Your task to perform on an android device: toggle translation in the chrome app Image 0: 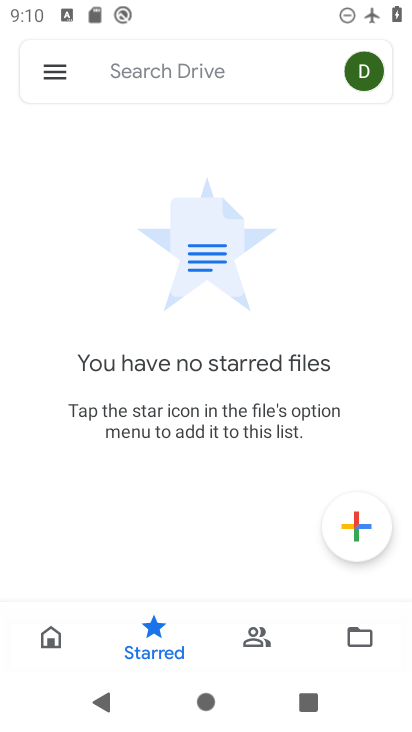
Step 0: press home button
Your task to perform on an android device: toggle translation in the chrome app Image 1: 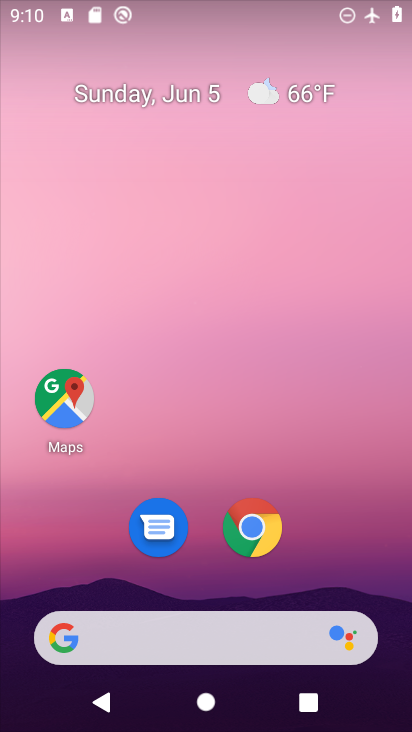
Step 1: click (252, 526)
Your task to perform on an android device: toggle translation in the chrome app Image 2: 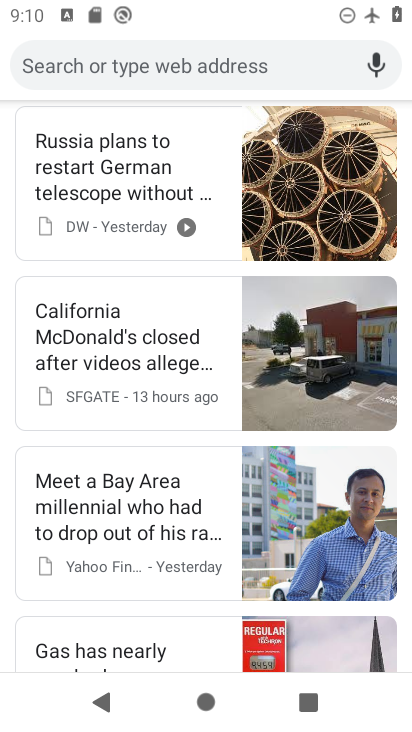
Step 2: drag from (224, 71) to (233, 723)
Your task to perform on an android device: toggle translation in the chrome app Image 3: 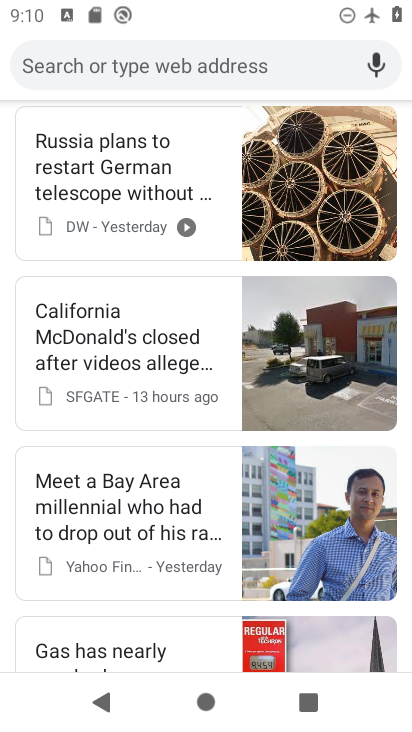
Step 3: drag from (220, 146) to (181, 602)
Your task to perform on an android device: toggle translation in the chrome app Image 4: 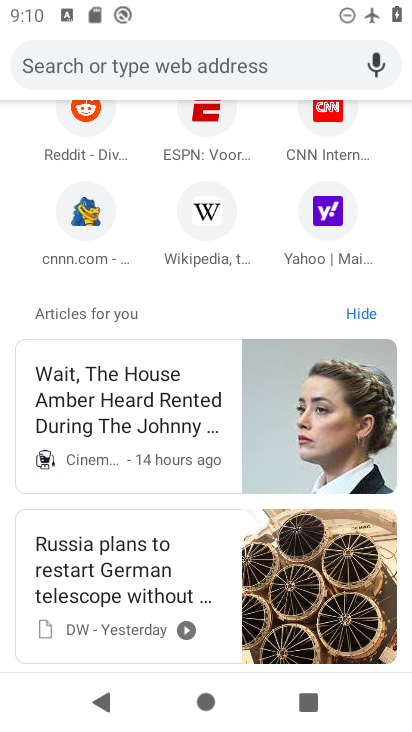
Step 4: drag from (200, 213) to (219, 686)
Your task to perform on an android device: toggle translation in the chrome app Image 5: 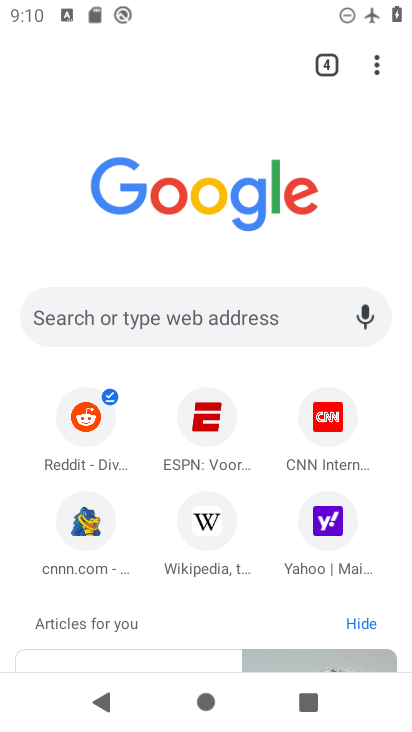
Step 5: click (377, 65)
Your task to perform on an android device: toggle translation in the chrome app Image 6: 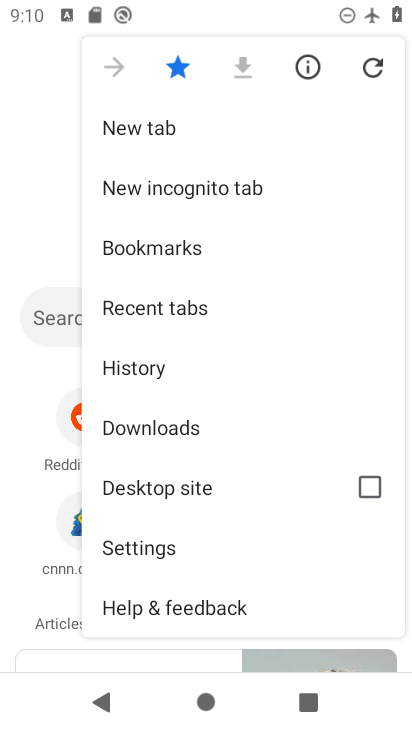
Step 6: click (108, 566)
Your task to perform on an android device: toggle translation in the chrome app Image 7: 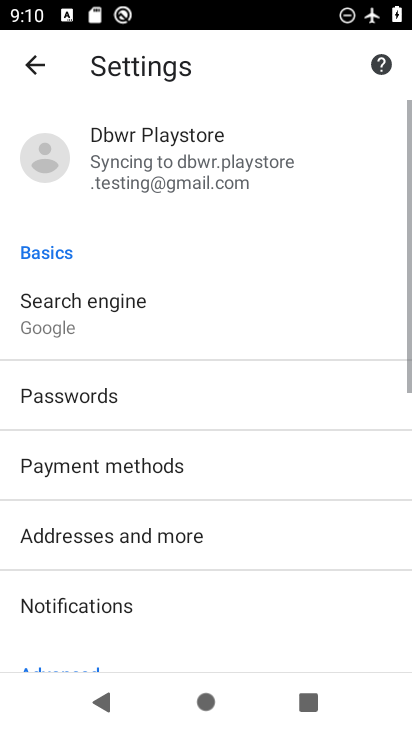
Step 7: drag from (108, 566) to (157, 127)
Your task to perform on an android device: toggle translation in the chrome app Image 8: 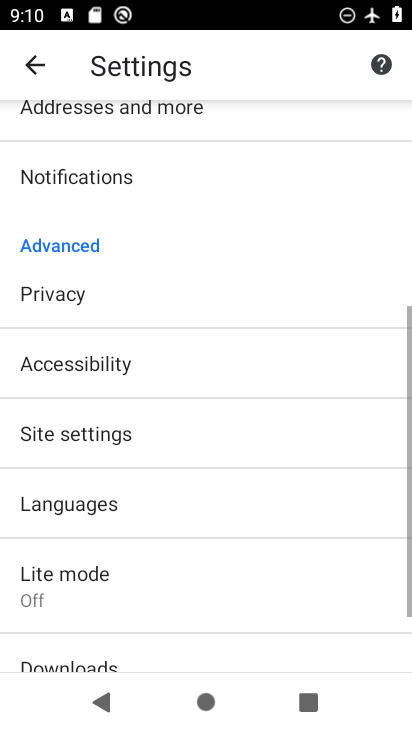
Step 8: click (73, 525)
Your task to perform on an android device: toggle translation in the chrome app Image 9: 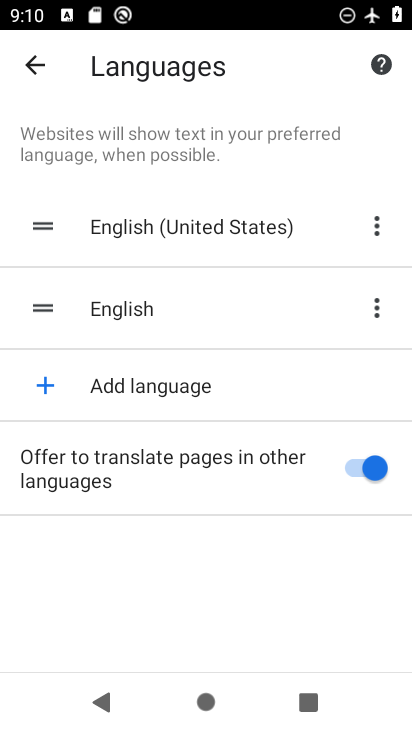
Step 9: click (383, 474)
Your task to perform on an android device: toggle translation in the chrome app Image 10: 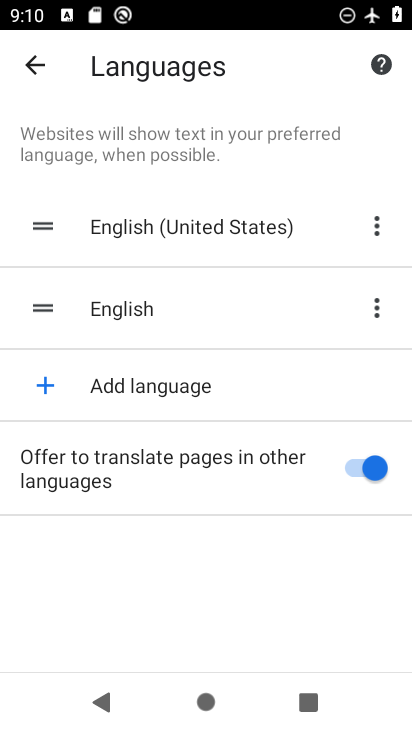
Step 10: click (383, 474)
Your task to perform on an android device: toggle translation in the chrome app Image 11: 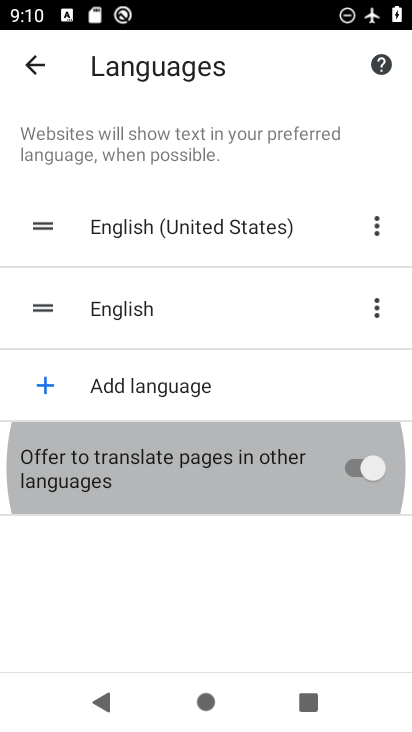
Step 11: click (383, 474)
Your task to perform on an android device: toggle translation in the chrome app Image 12: 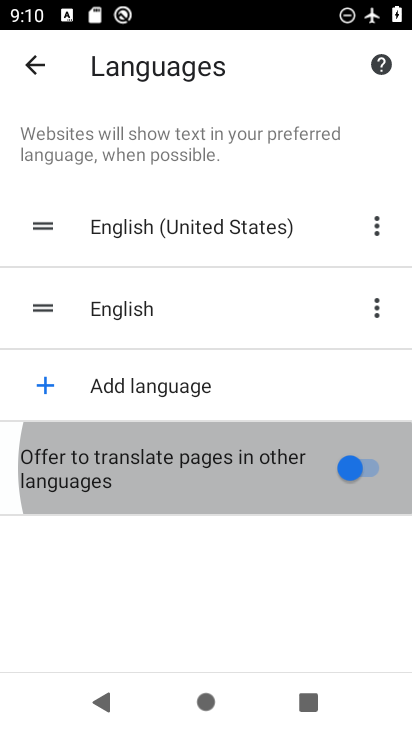
Step 12: click (383, 474)
Your task to perform on an android device: toggle translation in the chrome app Image 13: 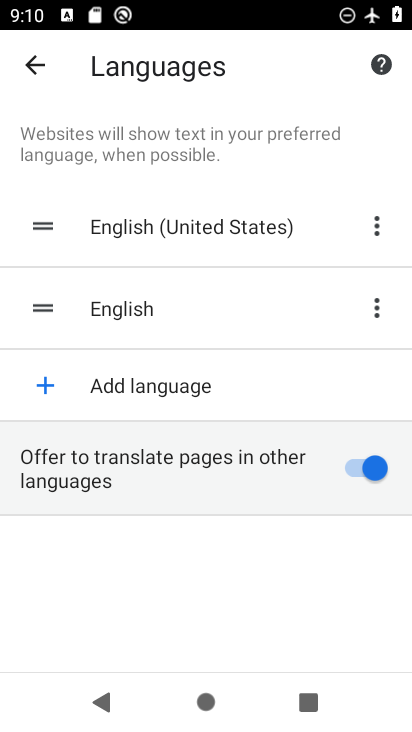
Step 13: click (383, 474)
Your task to perform on an android device: toggle translation in the chrome app Image 14: 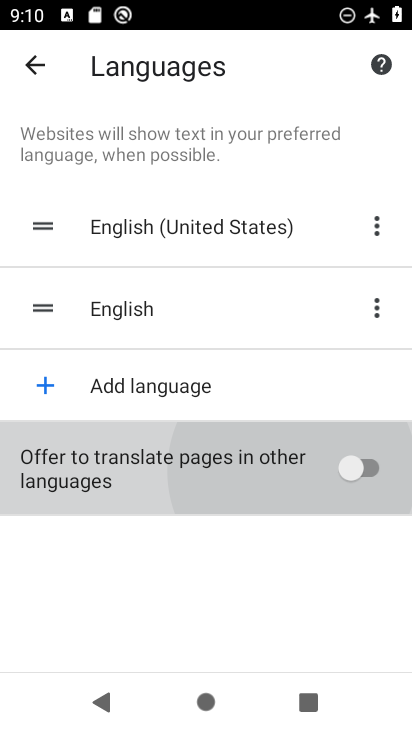
Step 14: click (383, 474)
Your task to perform on an android device: toggle translation in the chrome app Image 15: 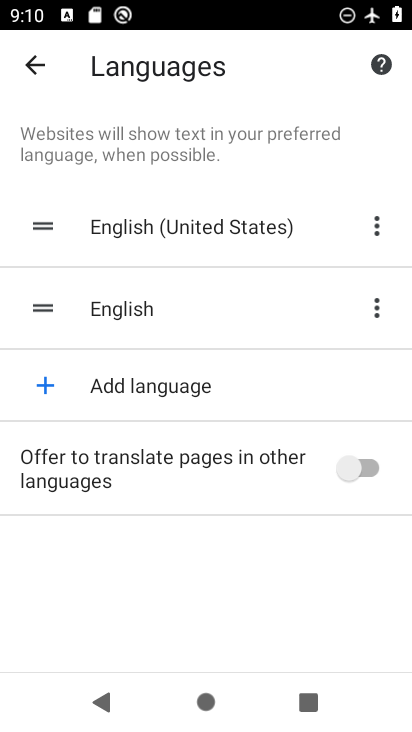
Step 15: task complete